Your task to perform on an android device: turn off wifi Image 0: 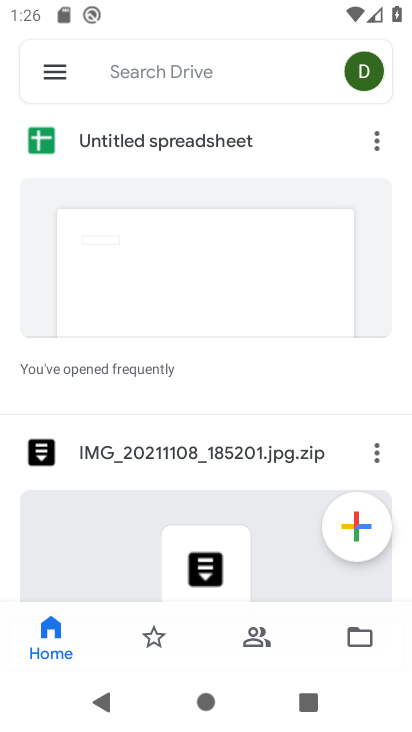
Step 0: press home button
Your task to perform on an android device: turn off wifi Image 1: 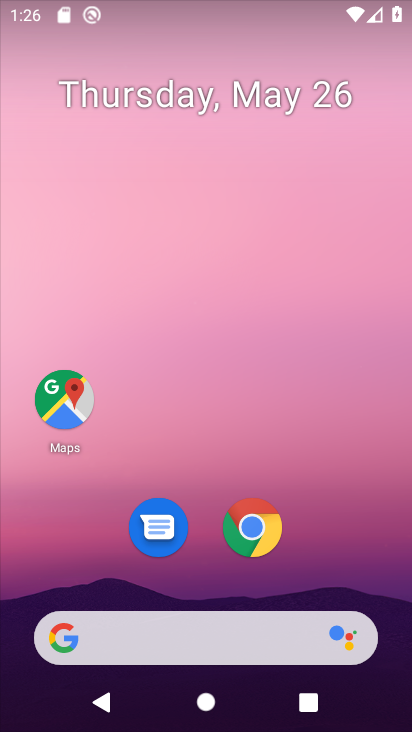
Step 1: drag from (328, 565) to (270, 184)
Your task to perform on an android device: turn off wifi Image 2: 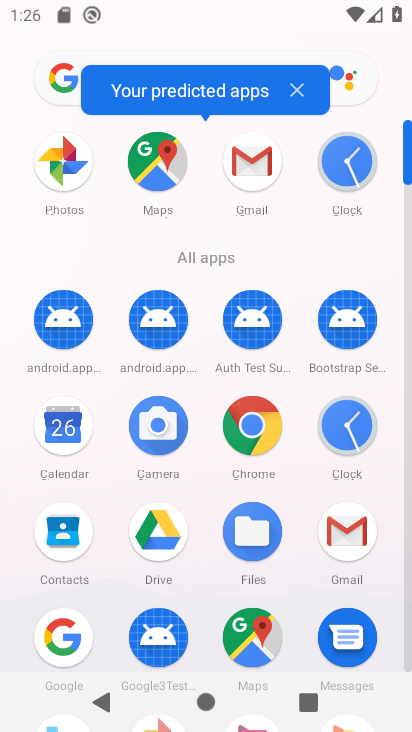
Step 2: click (404, 662)
Your task to perform on an android device: turn off wifi Image 3: 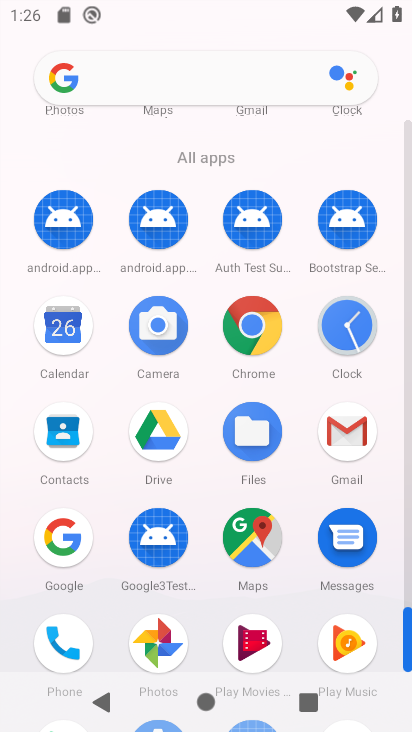
Step 3: drag from (397, 581) to (392, 460)
Your task to perform on an android device: turn off wifi Image 4: 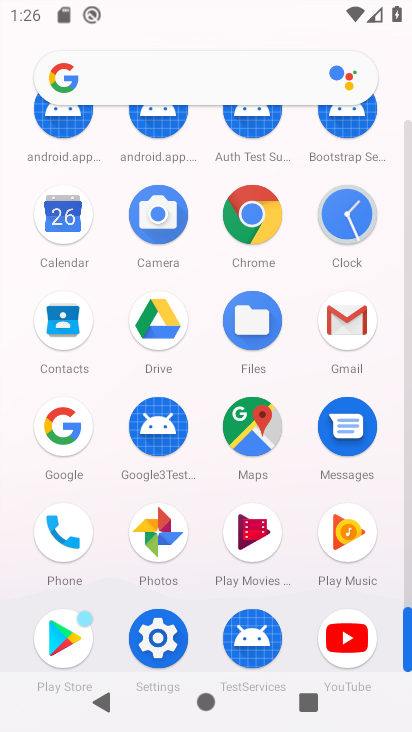
Step 4: click (164, 628)
Your task to perform on an android device: turn off wifi Image 5: 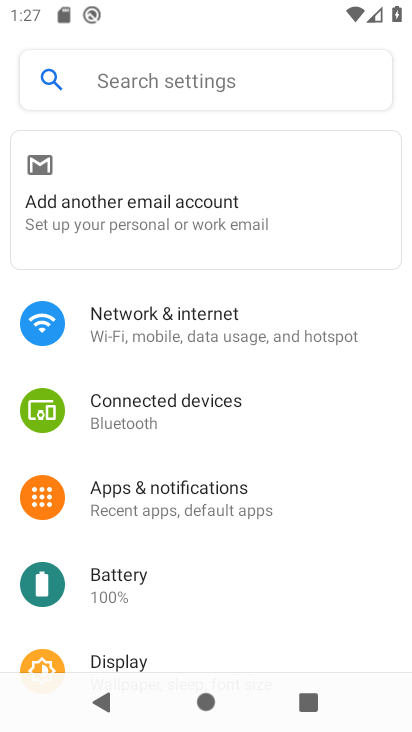
Step 5: click (185, 321)
Your task to perform on an android device: turn off wifi Image 6: 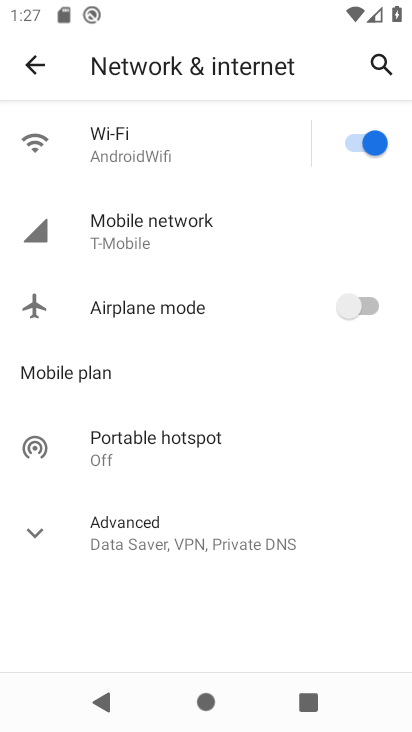
Step 6: click (357, 149)
Your task to perform on an android device: turn off wifi Image 7: 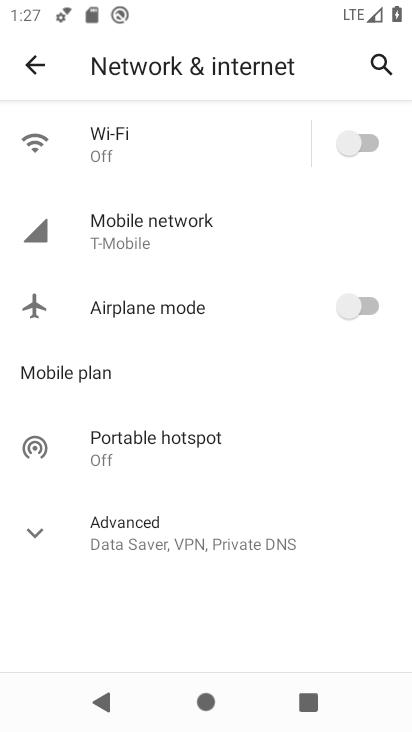
Step 7: task complete